Your task to perform on an android device: empty trash in google photos Image 0: 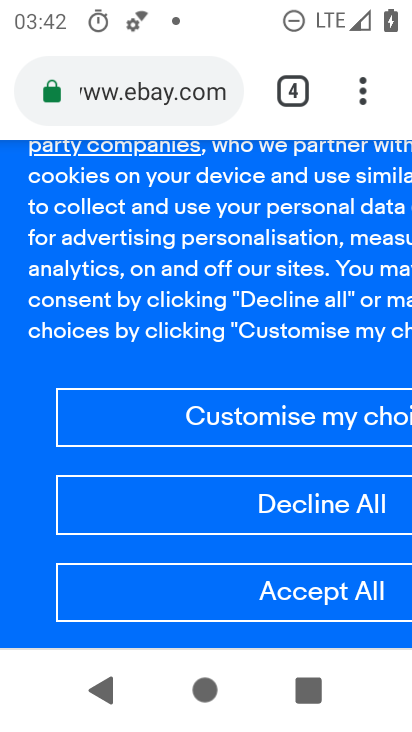
Step 0: press home button
Your task to perform on an android device: empty trash in google photos Image 1: 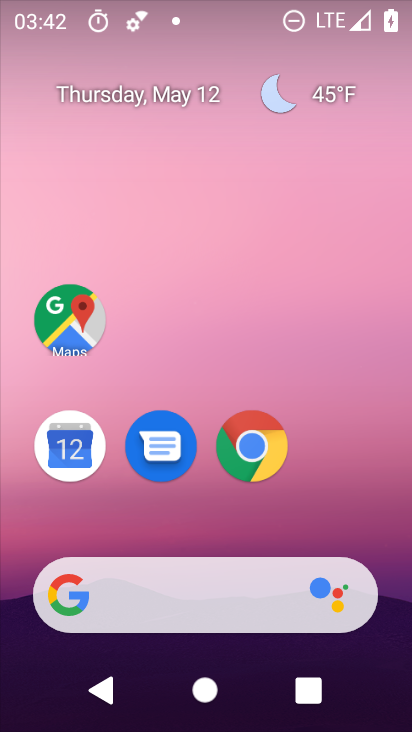
Step 1: drag from (207, 531) to (186, 207)
Your task to perform on an android device: empty trash in google photos Image 2: 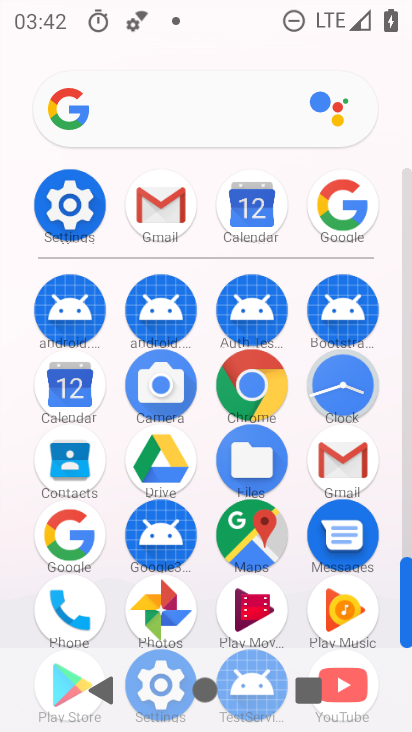
Step 2: click (151, 587)
Your task to perform on an android device: empty trash in google photos Image 3: 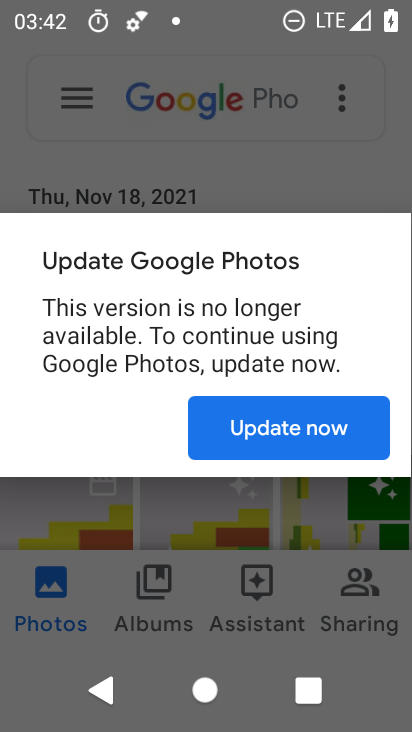
Step 3: click (285, 413)
Your task to perform on an android device: empty trash in google photos Image 4: 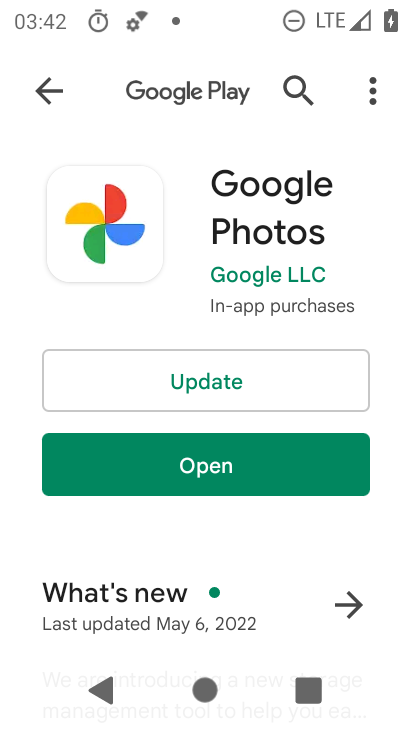
Step 4: click (182, 472)
Your task to perform on an android device: empty trash in google photos Image 5: 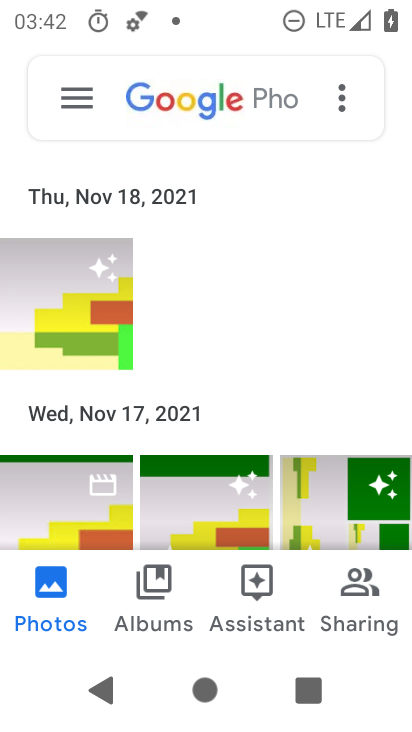
Step 5: click (76, 101)
Your task to perform on an android device: empty trash in google photos Image 6: 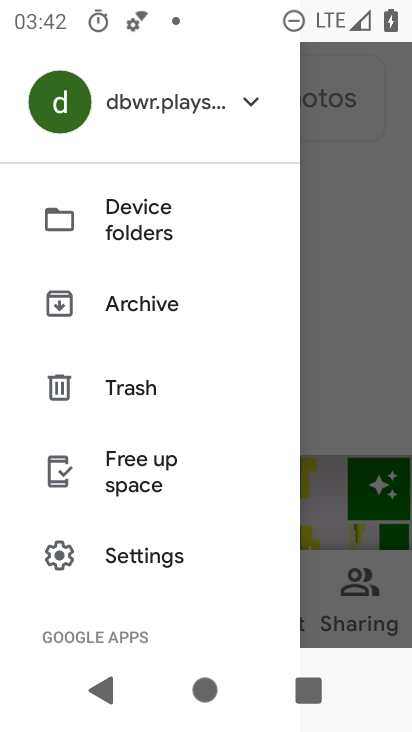
Step 6: click (127, 379)
Your task to perform on an android device: empty trash in google photos Image 7: 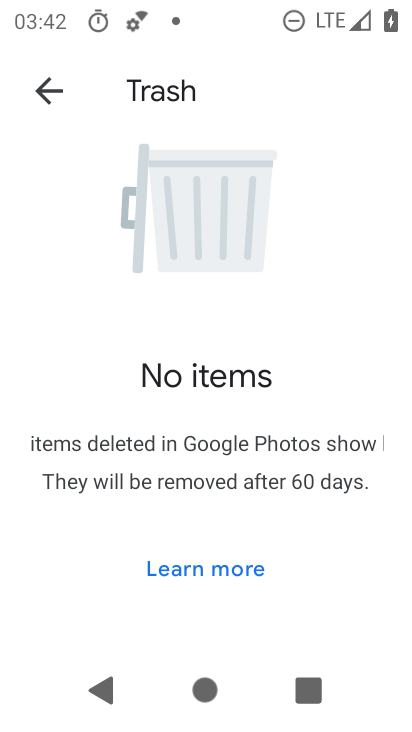
Step 7: task complete